Your task to perform on an android device: turn on showing notifications on the lock screen Image 0: 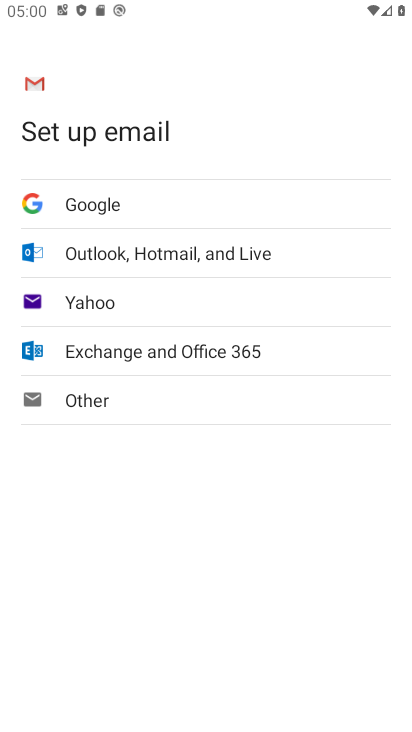
Step 0: press back button
Your task to perform on an android device: turn on showing notifications on the lock screen Image 1: 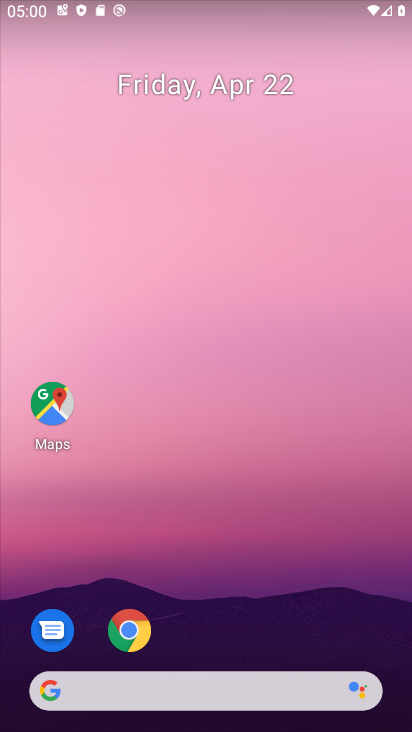
Step 1: drag from (242, 444) to (155, 15)
Your task to perform on an android device: turn on showing notifications on the lock screen Image 2: 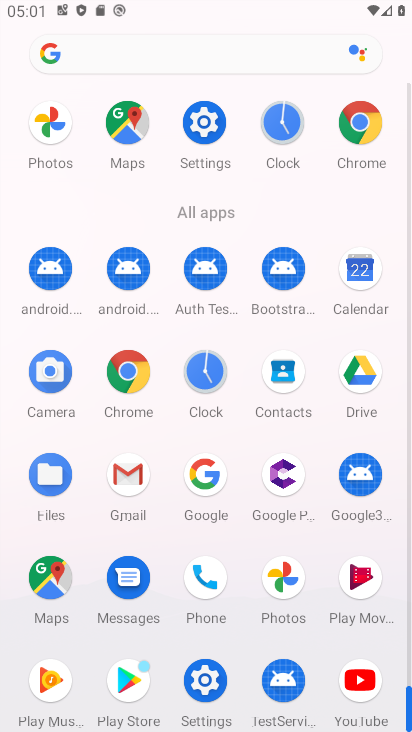
Step 2: drag from (6, 540) to (1, 240)
Your task to perform on an android device: turn on showing notifications on the lock screen Image 3: 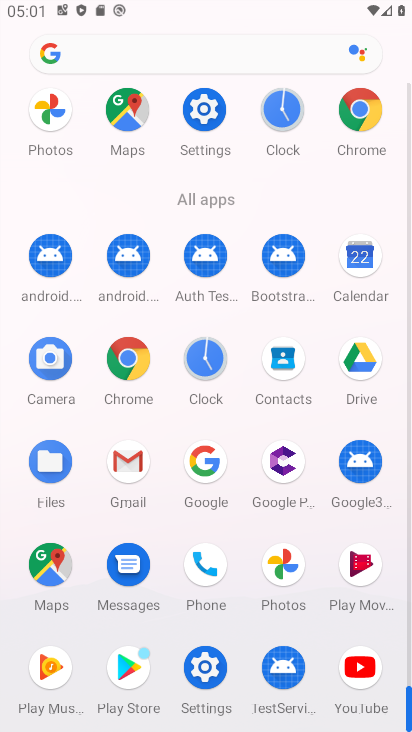
Step 3: click (206, 113)
Your task to perform on an android device: turn on showing notifications on the lock screen Image 4: 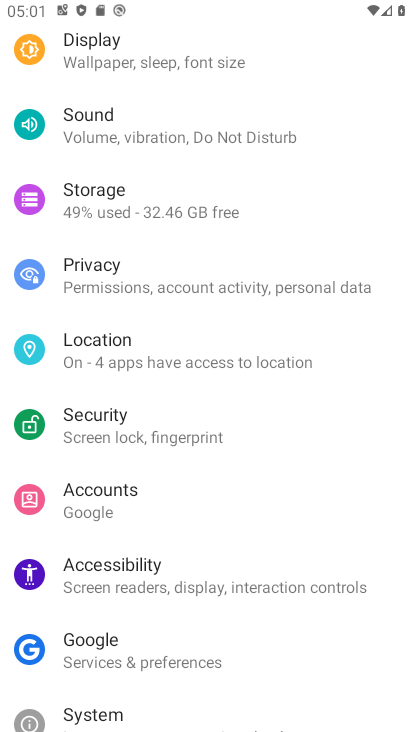
Step 4: drag from (249, 429) to (248, 132)
Your task to perform on an android device: turn on showing notifications on the lock screen Image 5: 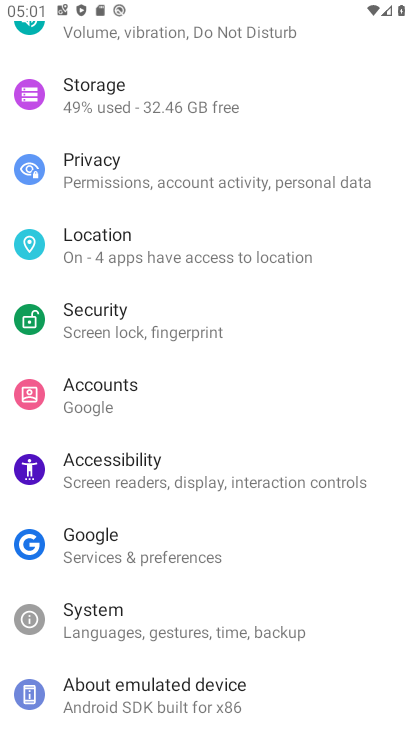
Step 5: drag from (235, 429) to (225, 133)
Your task to perform on an android device: turn on showing notifications on the lock screen Image 6: 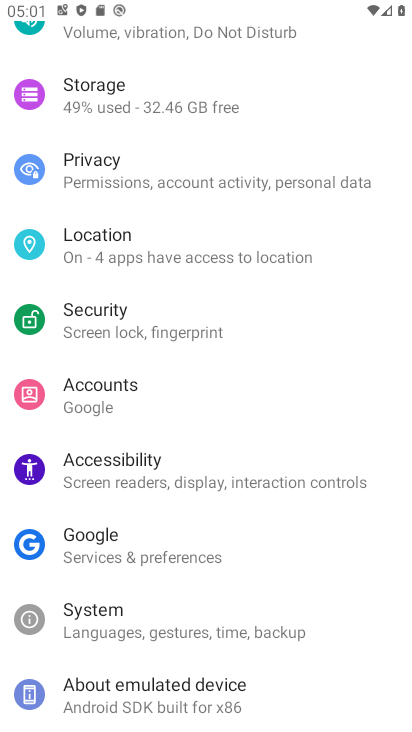
Step 6: drag from (216, 544) to (253, 193)
Your task to perform on an android device: turn on showing notifications on the lock screen Image 7: 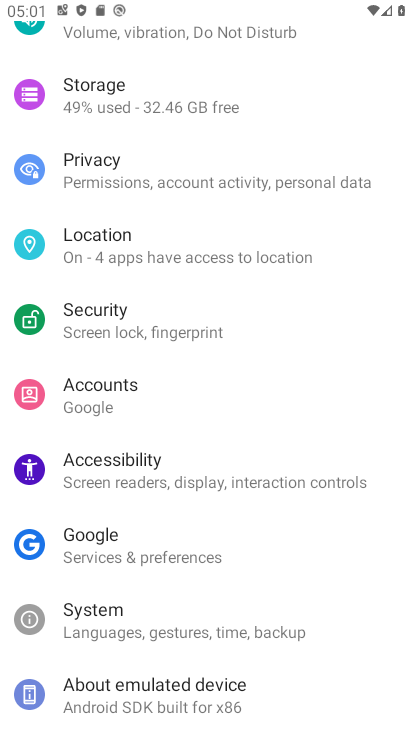
Step 7: drag from (188, 113) to (220, 456)
Your task to perform on an android device: turn on showing notifications on the lock screen Image 8: 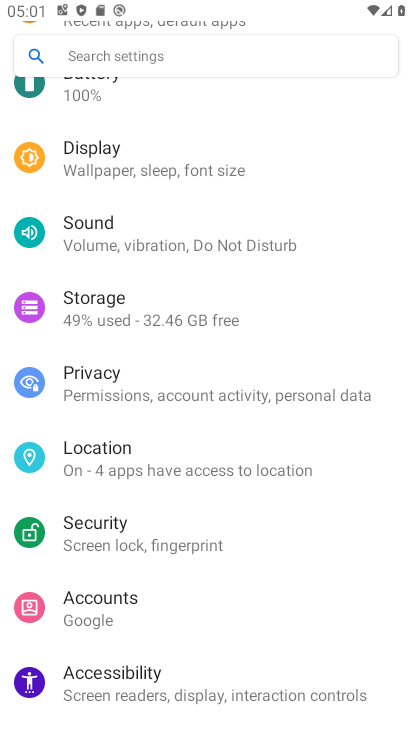
Step 8: drag from (241, 217) to (275, 499)
Your task to perform on an android device: turn on showing notifications on the lock screen Image 9: 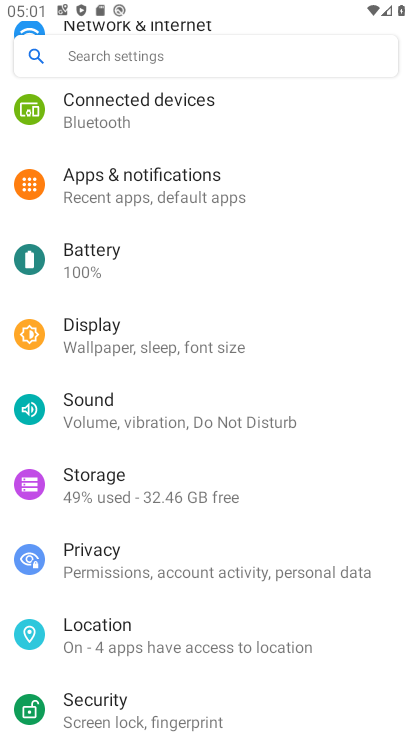
Step 9: click (202, 179)
Your task to perform on an android device: turn on showing notifications on the lock screen Image 10: 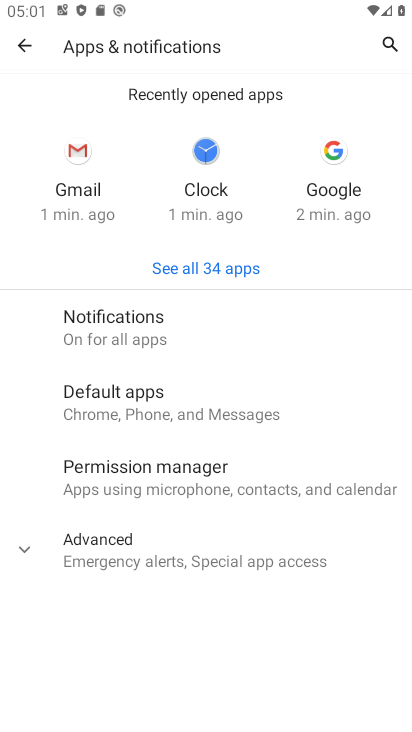
Step 10: click (174, 309)
Your task to perform on an android device: turn on showing notifications on the lock screen Image 11: 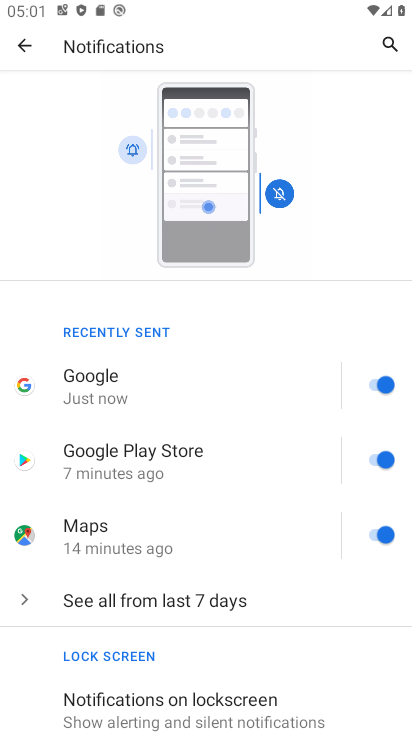
Step 11: drag from (210, 534) to (235, 192)
Your task to perform on an android device: turn on showing notifications on the lock screen Image 12: 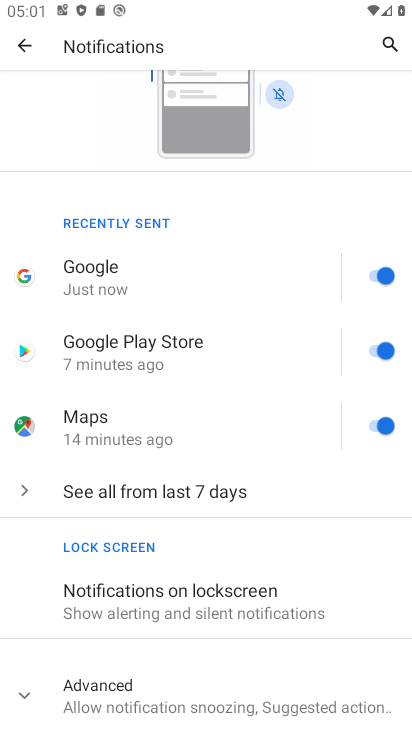
Step 12: drag from (227, 601) to (253, 245)
Your task to perform on an android device: turn on showing notifications on the lock screen Image 13: 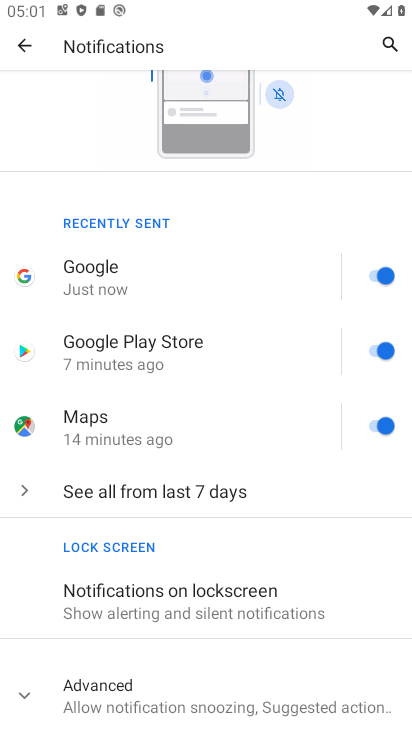
Step 13: click (50, 692)
Your task to perform on an android device: turn on showing notifications on the lock screen Image 14: 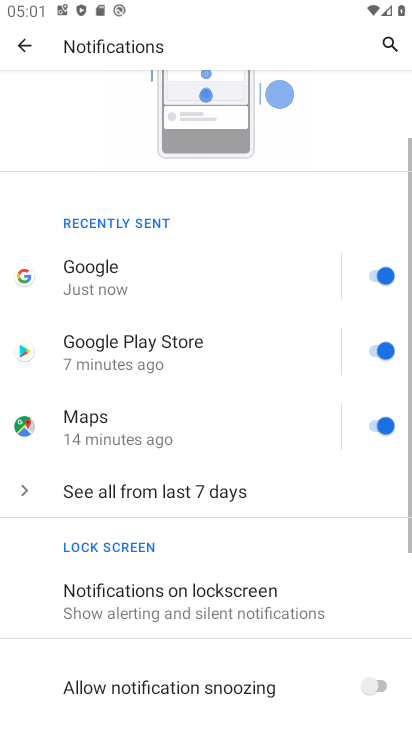
Step 14: drag from (206, 657) to (214, 284)
Your task to perform on an android device: turn on showing notifications on the lock screen Image 15: 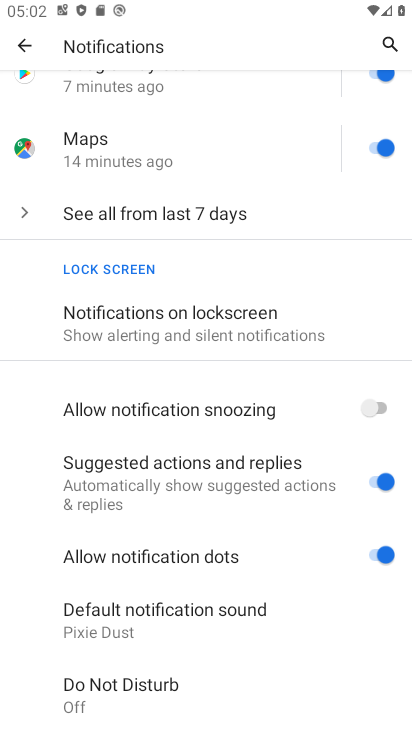
Step 15: click (213, 330)
Your task to perform on an android device: turn on showing notifications on the lock screen Image 16: 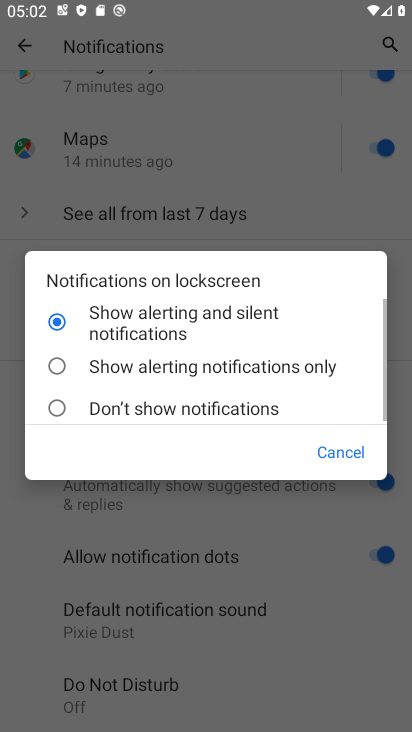
Step 16: click (213, 330)
Your task to perform on an android device: turn on showing notifications on the lock screen Image 17: 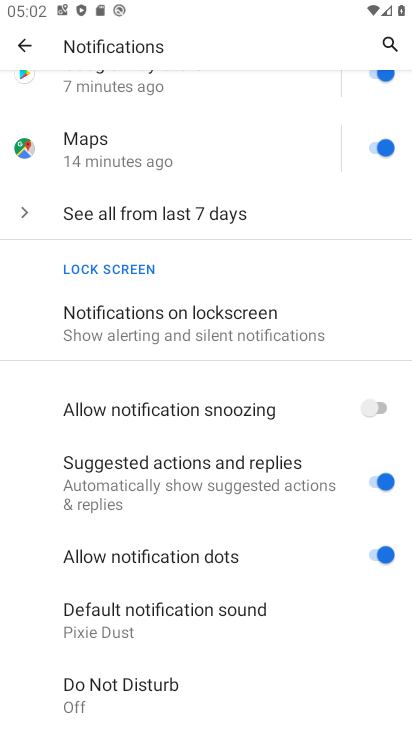
Step 17: task complete